Your task to perform on an android device: Find coffee shops on Maps Image 0: 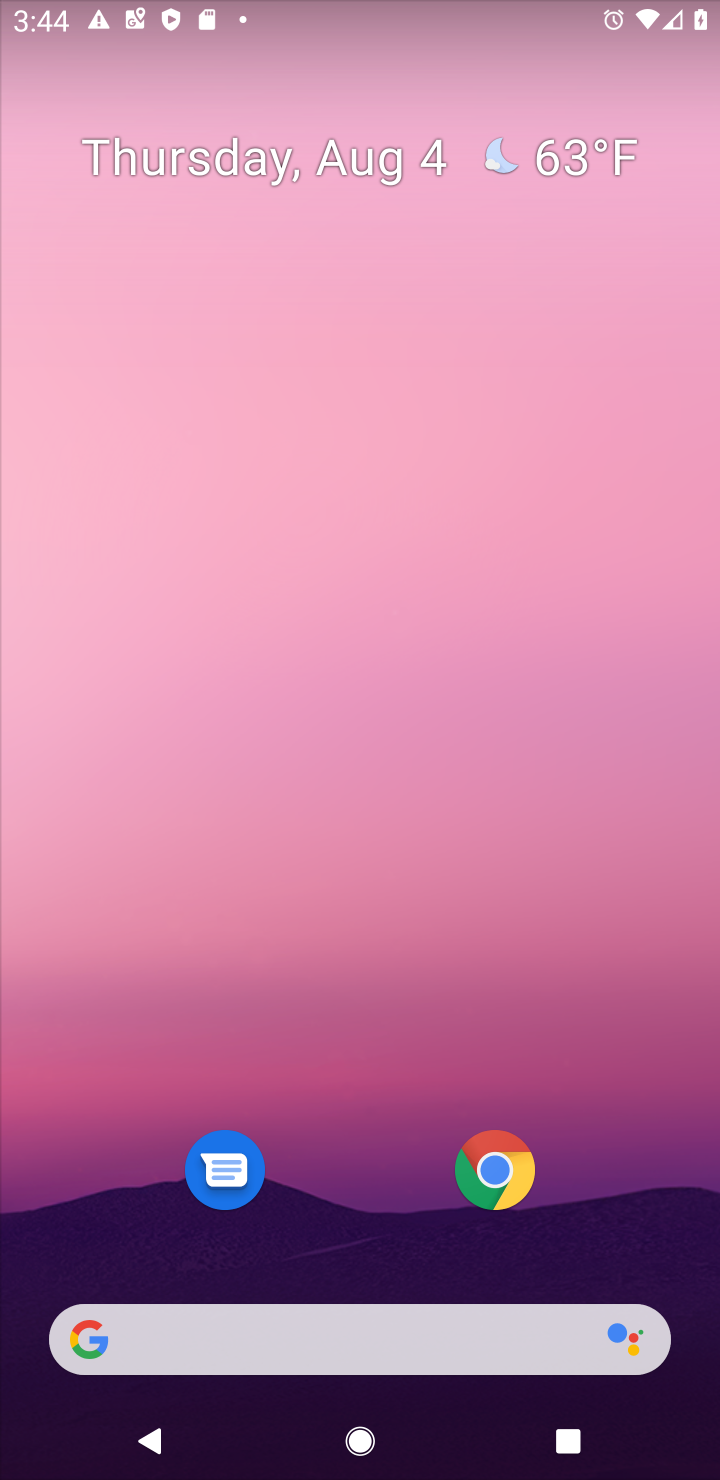
Step 0: drag from (668, 1216) to (587, 309)
Your task to perform on an android device: Find coffee shops on Maps Image 1: 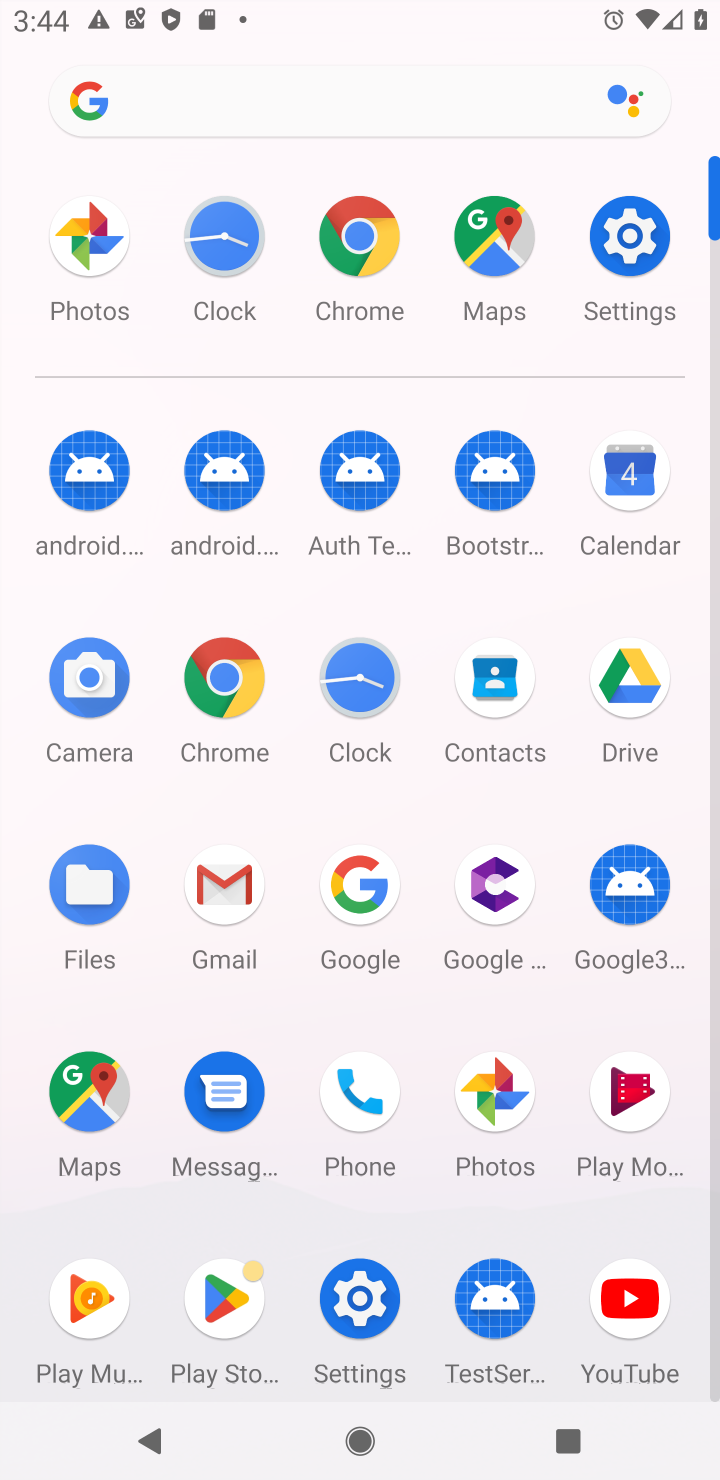
Step 1: click (96, 1091)
Your task to perform on an android device: Find coffee shops on Maps Image 2: 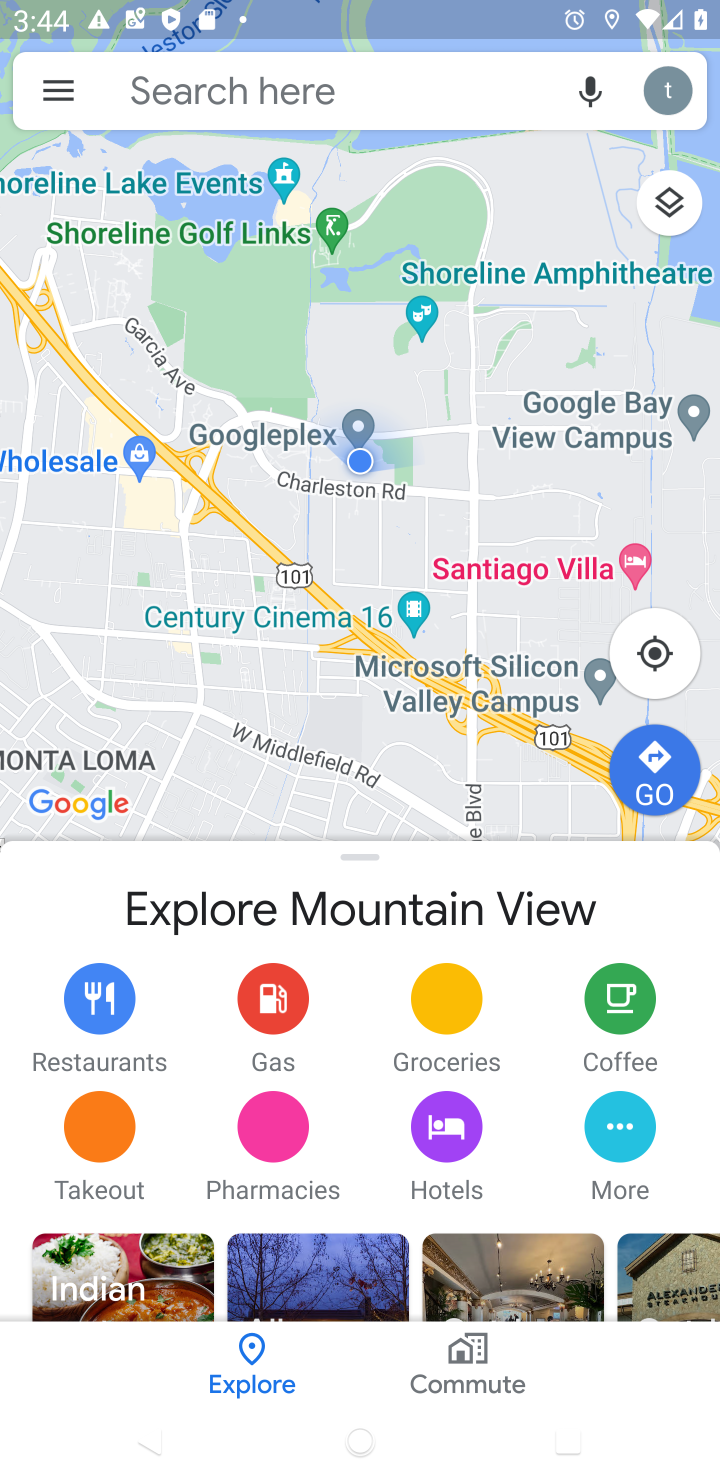
Step 2: click (234, 98)
Your task to perform on an android device: Find coffee shops on Maps Image 3: 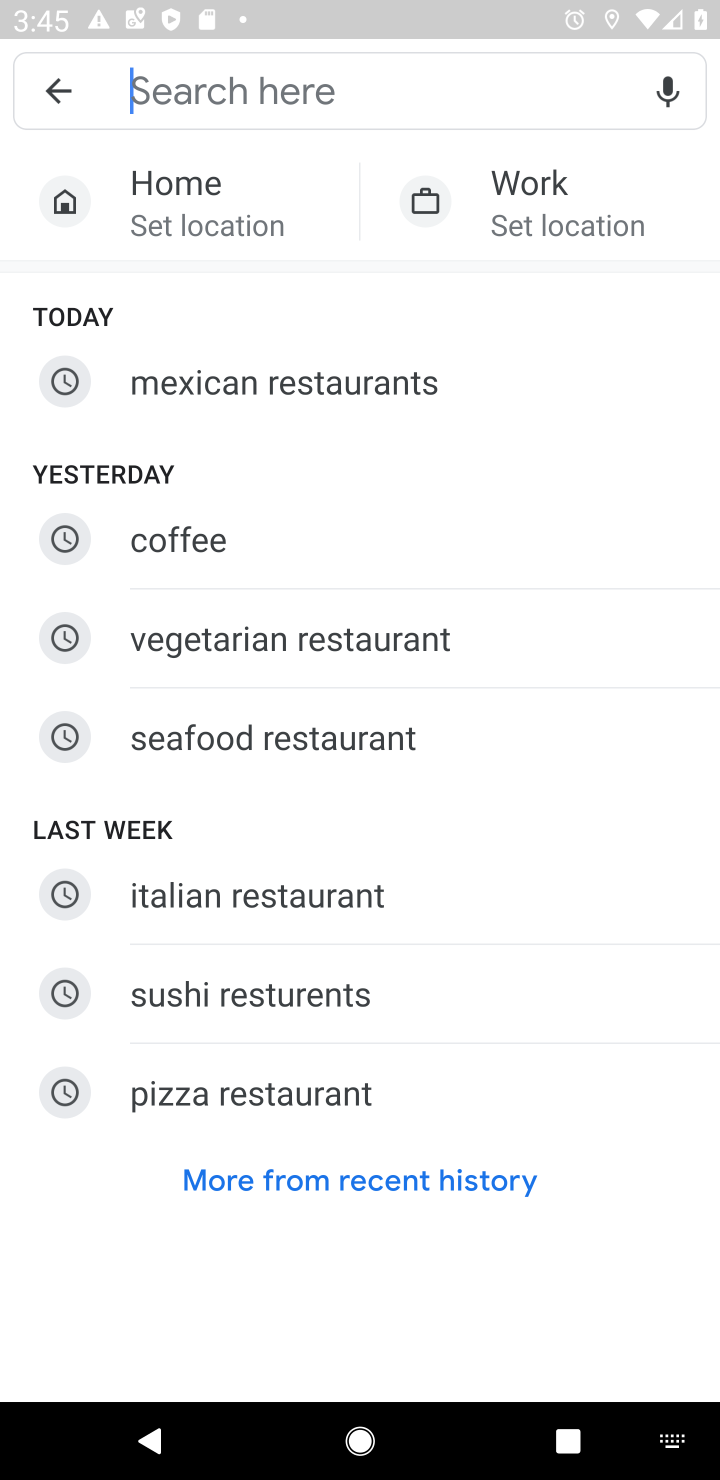
Step 3: type "coffee shops"
Your task to perform on an android device: Find coffee shops on Maps Image 4: 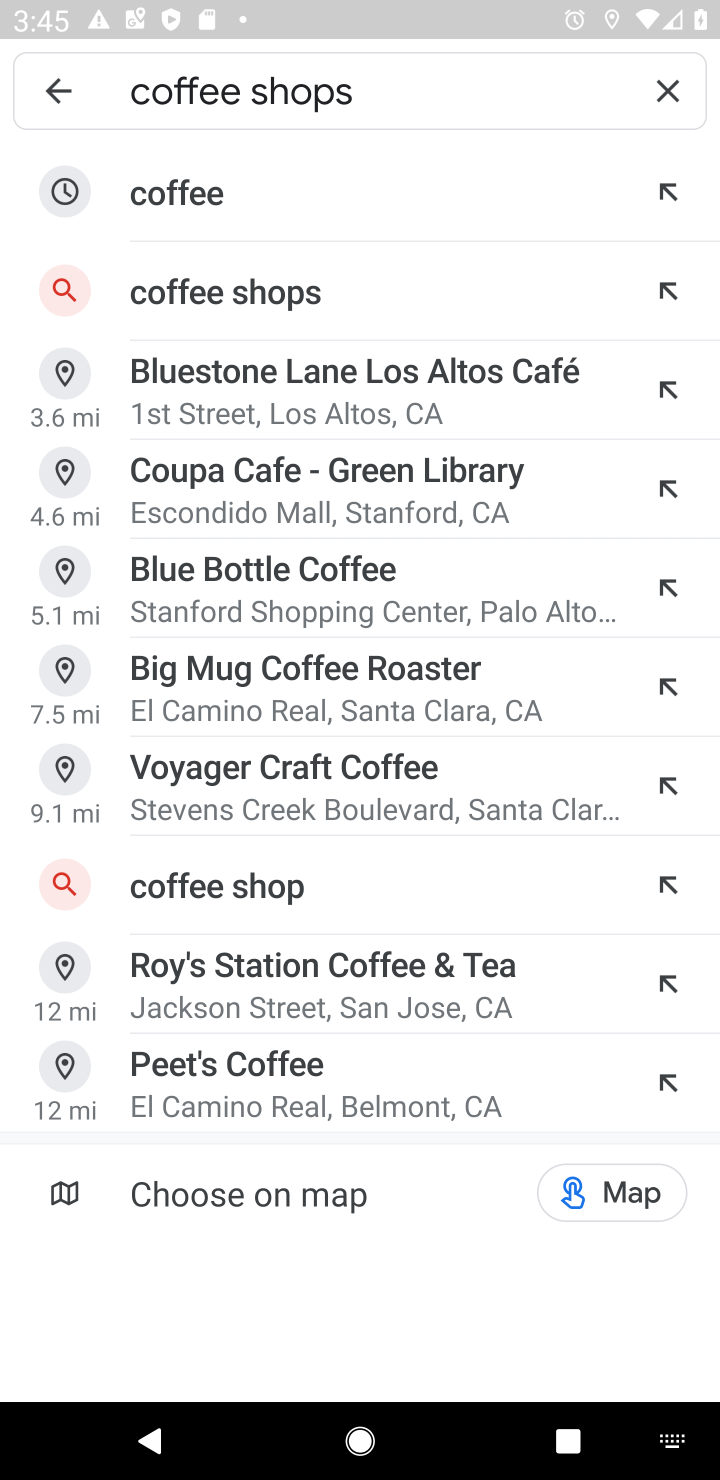
Step 4: click (226, 274)
Your task to perform on an android device: Find coffee shops on Maps Image 5: 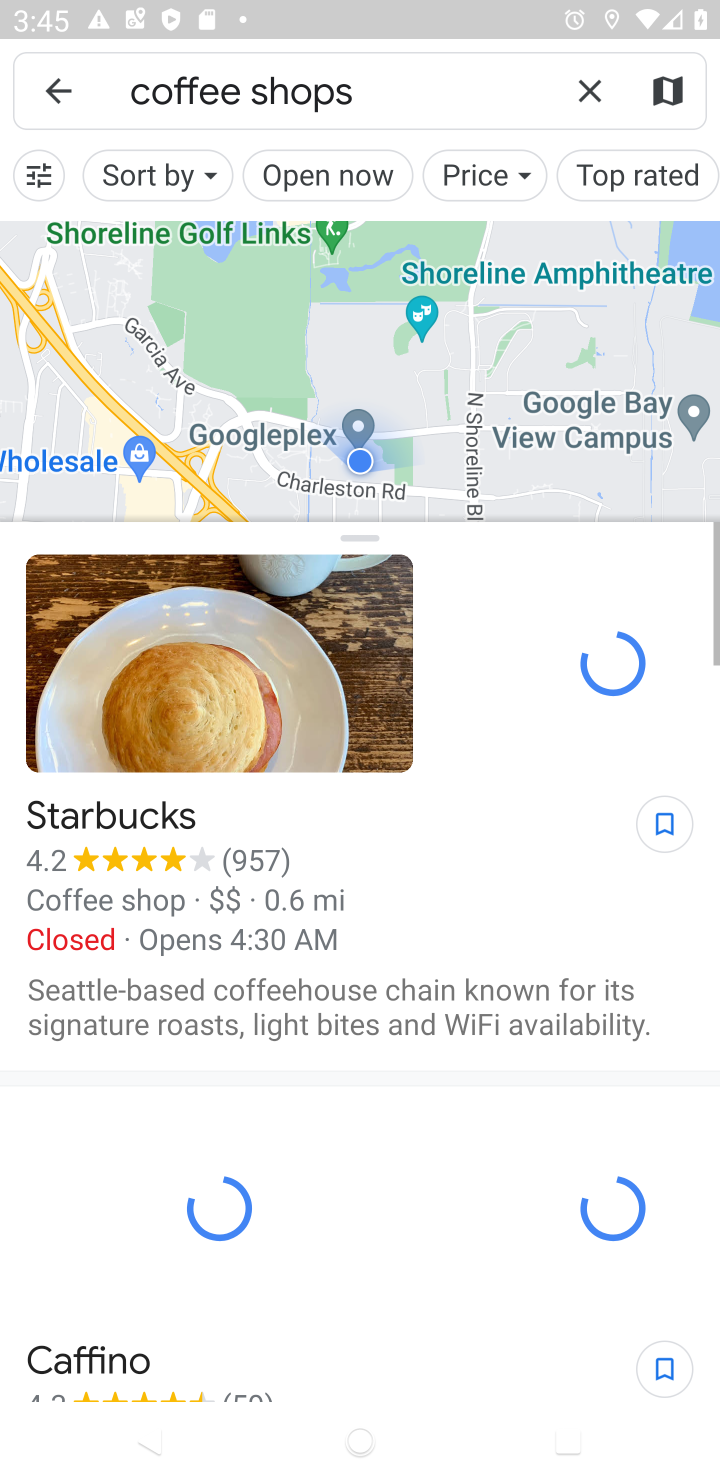
Step 5: task complete